Your task to perform on an android device: turn on showing notifications on the lock screen Image 0: 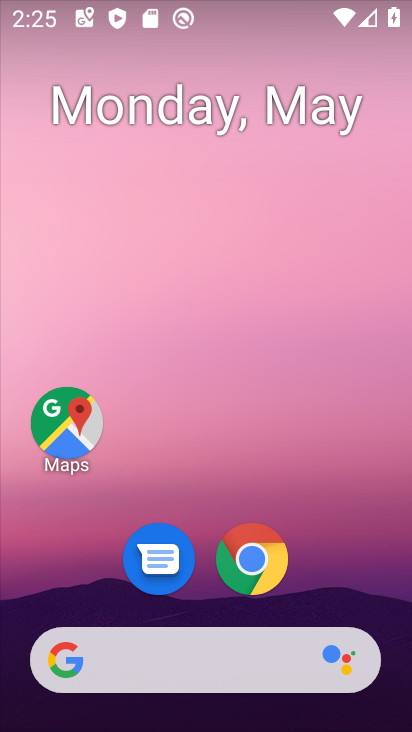
Step 0: drag from (225, 711) to (211, 150)
Your task to perform on an android device: turn on showing notifications on the lock screen Image 1: 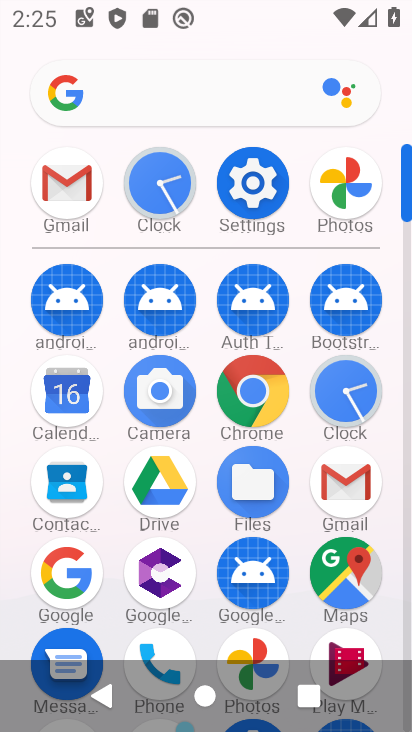
Step 1: click (245, 197)
Your task to perform on an android device: turn on showing notifications on the lock screen Image 2: 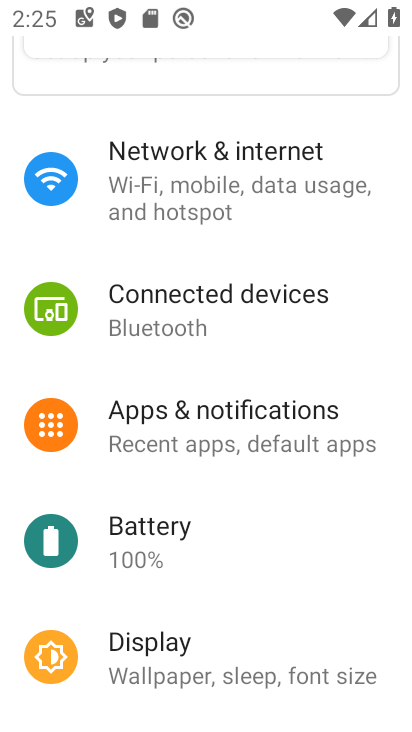
Step 2: click (262, 468)
Your task to perform on an android device: turn on showing notifications on the lock screen Image 3: 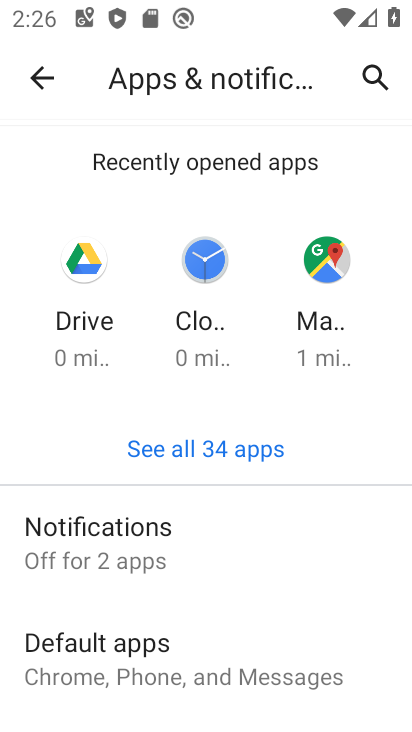
Step 3: click (171, 528)
Your task to perform on an android device: turn on showing notifications on the lock screen Image 4: 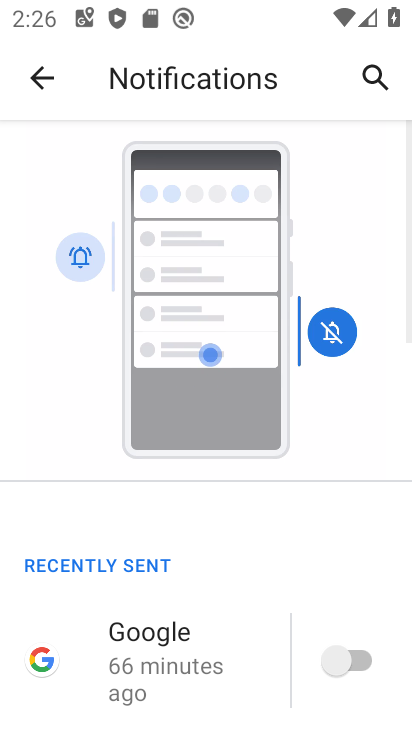
Step 4: drag from (165, 718) to (151, 81)
Your task to perform on an android device: turn on showing notifications on the lock screen Image 5: 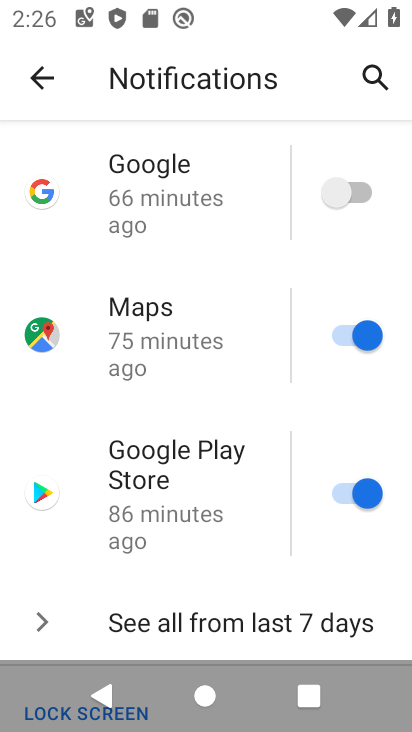
Step 5: drag from (217, 616) to (205, 65)
Your task to perform on an android device: turn on showing notifications on the lock screen Image 6: 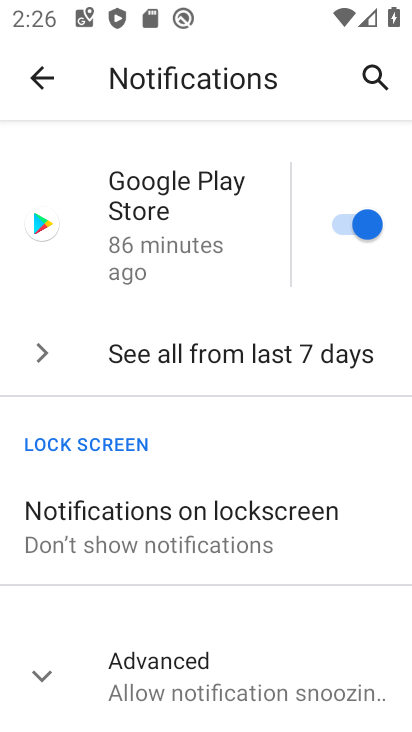
Step 6: click (256, 500)
Your task to perform on an android device: turn on showing notifications on the lock screen Image 7: 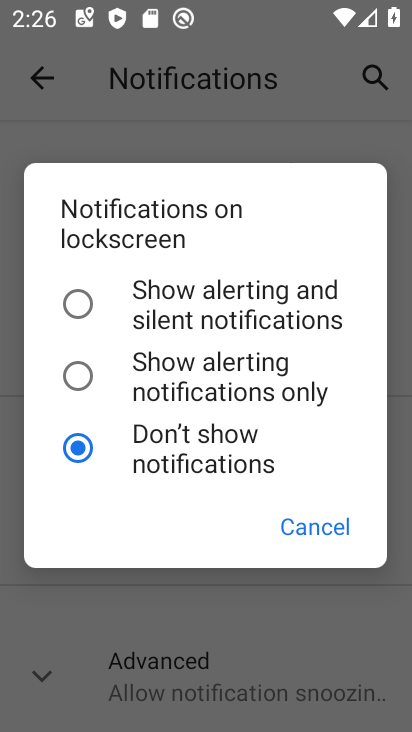
Step 7: click (188, 312)
Your task to perform on an android device: turn on showing notifications on the lock screen Image 8: 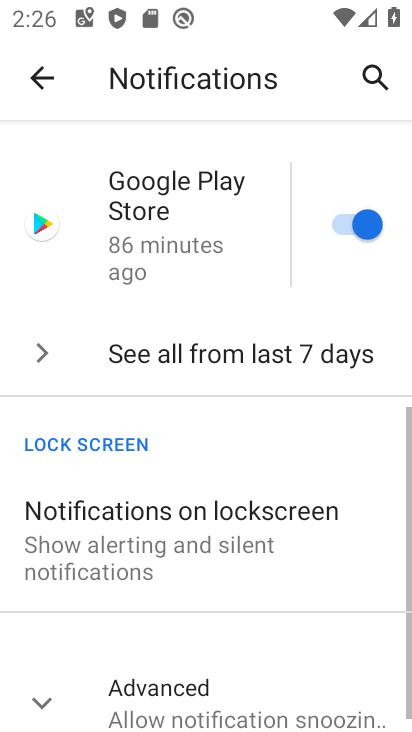
Step 8: task complete